Your task to perform on an android device: Open accessibility settings Image 0: 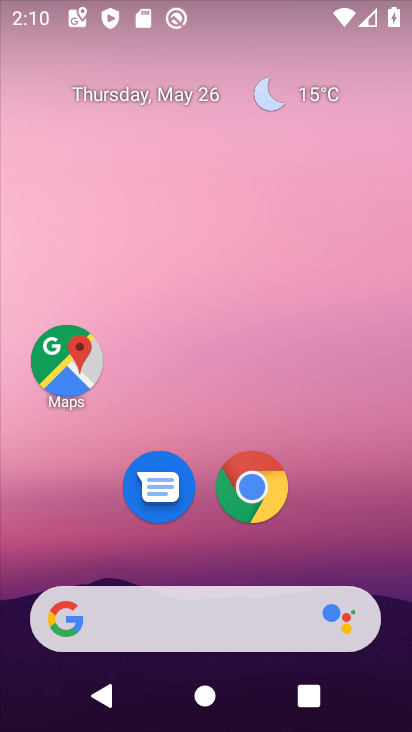
Step 0: drag from (221, 550) to (211, 221)
Your task to perform on an android device: Open accessibility settings Image 1: 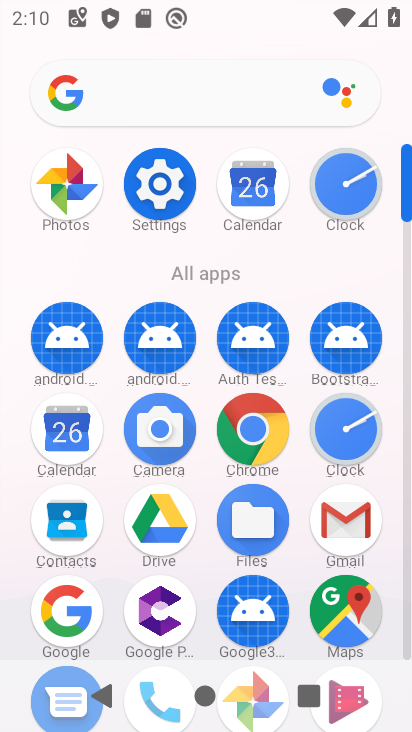
Step 1: click (176, 199)
Your task to perform on an android device: Open accessibility settings Image 2: 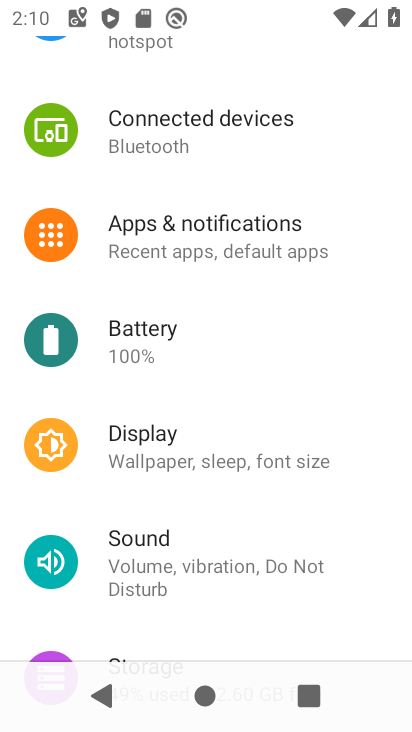
Step 2: drag from (233, 545) to (208, 171)
Your task to perform on an android device: Open accessibility settings Image 3: 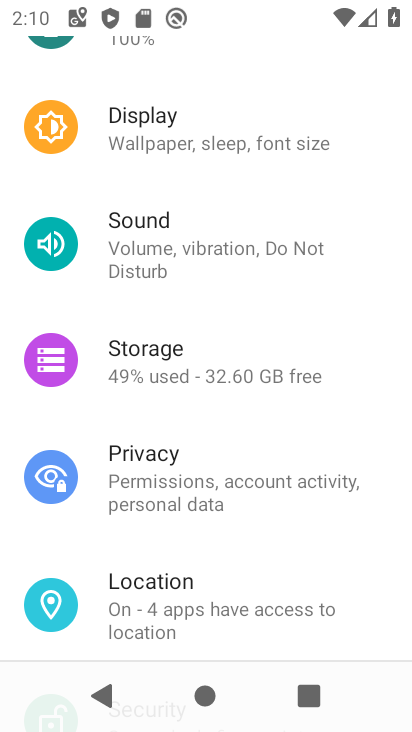
Step 3: drag from (243, 525) to (238, 341)
Your task to perform on an android device: Open accessibility settings Image 4: 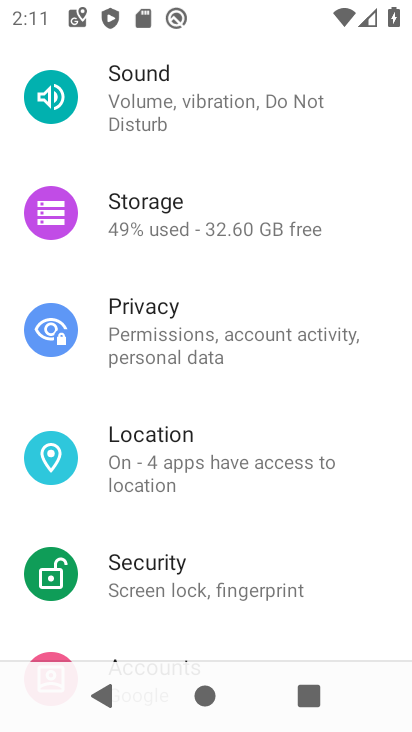
Step 4: drag from (214, 565) to (204, 407)
Your task to perform on an android device: Open accessibility settings Image 5: 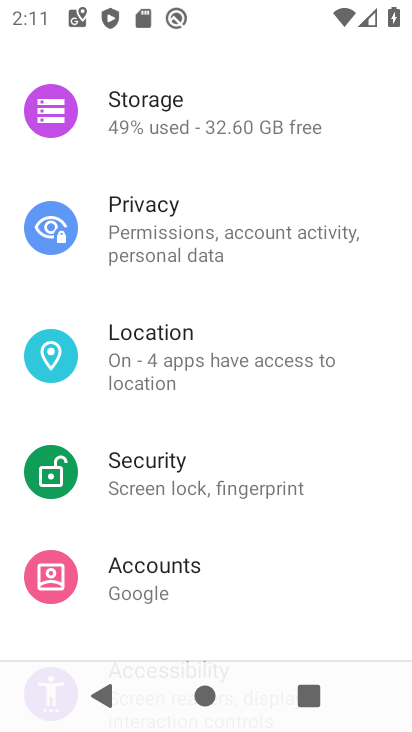
Step 5: drag from (223, 536) to (227, 292)
Your task to perform on an android device: Open accessibility settings Image 6: 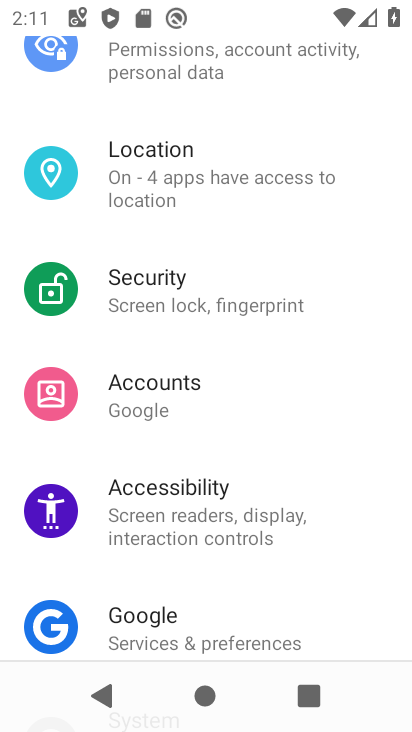
Step 6: click (202, 506)
Your task to perform on an android device: Open accessibility settings Image 7: 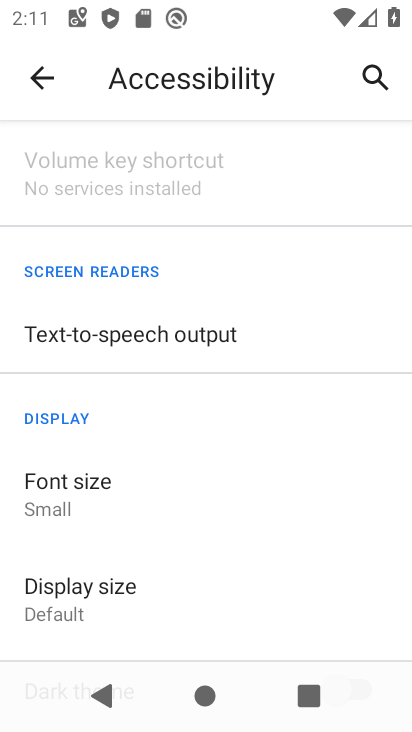
Step 7: task complete